Your task to perform on an android device: open chrome and create a bookmark for the current page Image 0: 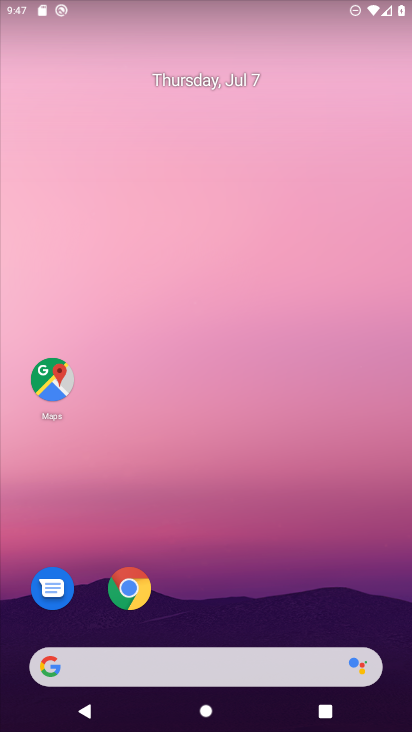
Step 0: click (133, 593)
Your task to perform on an android device: open chrome and create a bookmark for the current page Image 1: 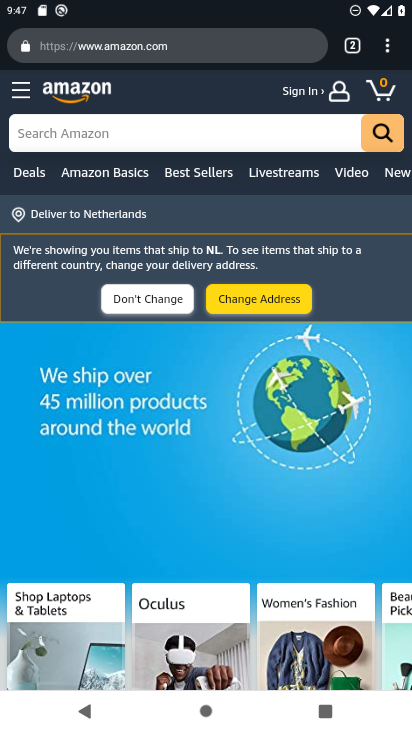
Step 1: click (382, 47)
Your task to perform on an android device: open chrome and create a bookmark for the current page Image 2: 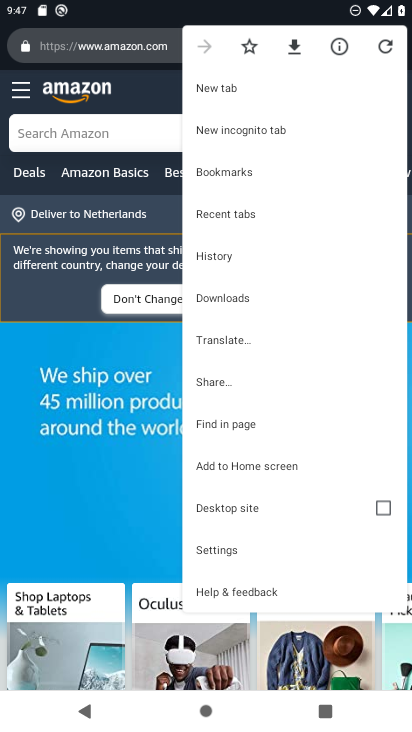
Step 2: click (246, 48)
Your task to perform on an android device: open chrome and create a bookmark for the current page Image 3: 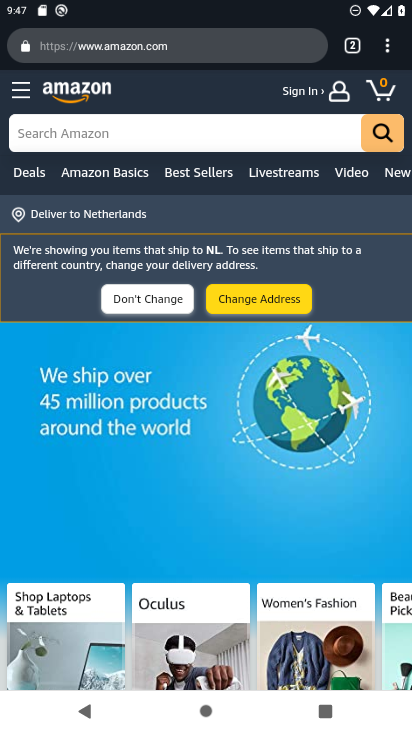
Step 3: task complete